Your task to perform on an android device: What's the weather going to be tomorrow? Image 0: 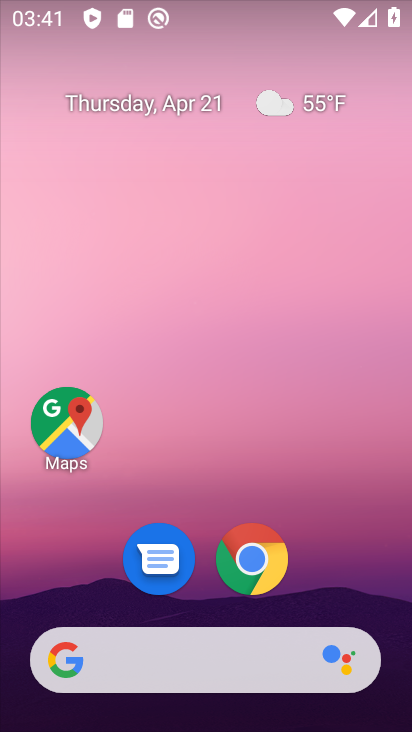
Step 0: click (300, 112)
Your task to perform on an android device: What's the weather going to be tomorrow? Image 1: 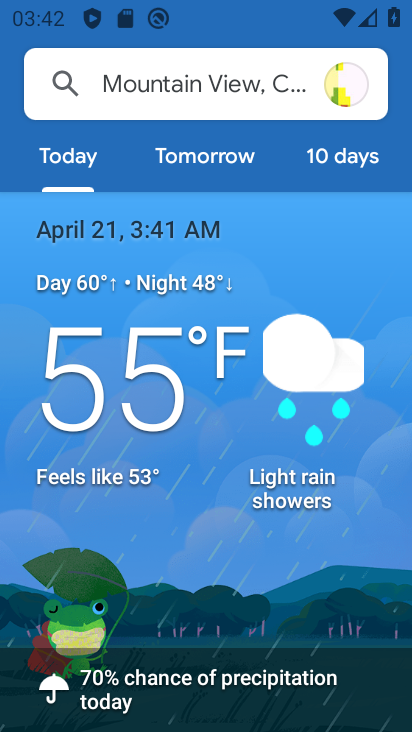
Step 1: click (224, 155)
Your task to perform on an android device: What's the weather going to be tomorrow? Image 2: 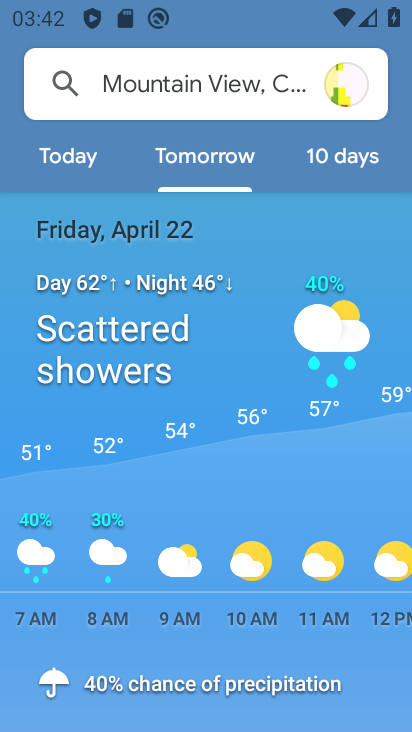
Step 2: task complete